Your task to perform on an android device: Go to location settings Image 0: 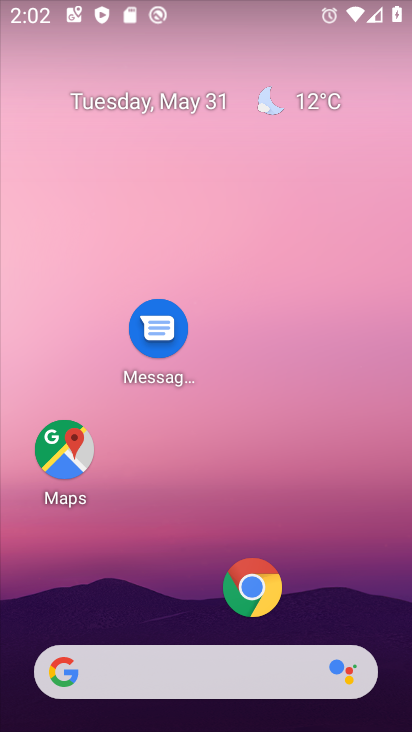
Step 0: drag from (286, 205) to (300, 153)
Your task to perform on an android device: Go to location settings Image 1: 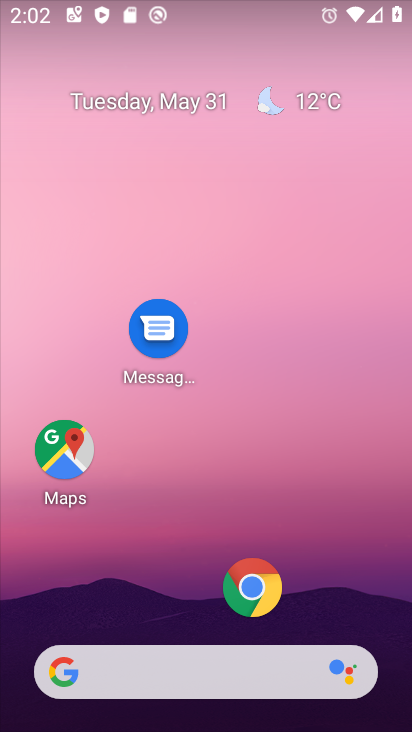
Step 1: drag from (206, 613) to (202, 90)
Your task to perform on an android device: Go to location settings Image 2: 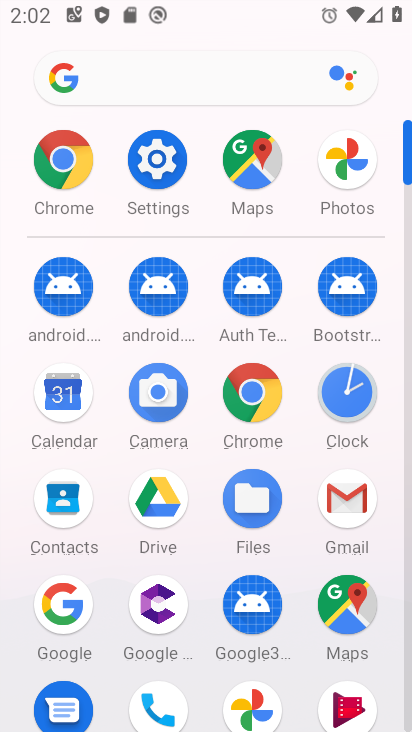
Step 2: click (149, 161)
Your task to perform on an android device: Go to location settings Image 3: 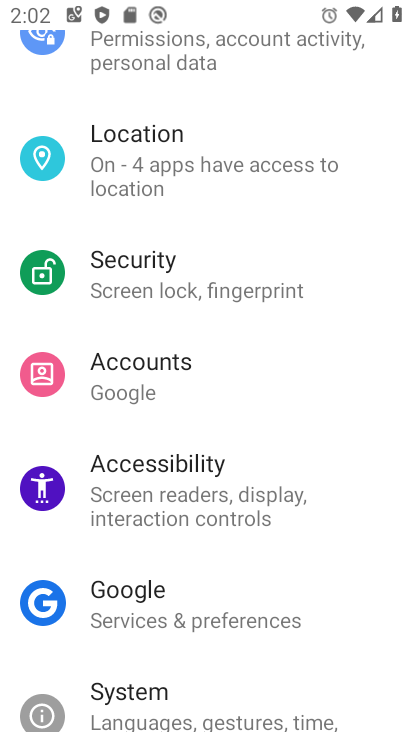
Step 3: click (147, 157)
Your task to perform on an android device: Go to location settings Image 4: 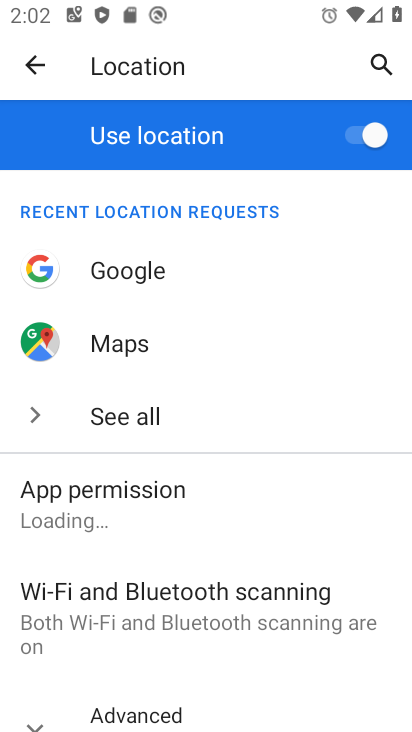
Step 4: drag from (212, 609) to (295, 128)
Your task to perform on an android device: Go to location settings Image 5: 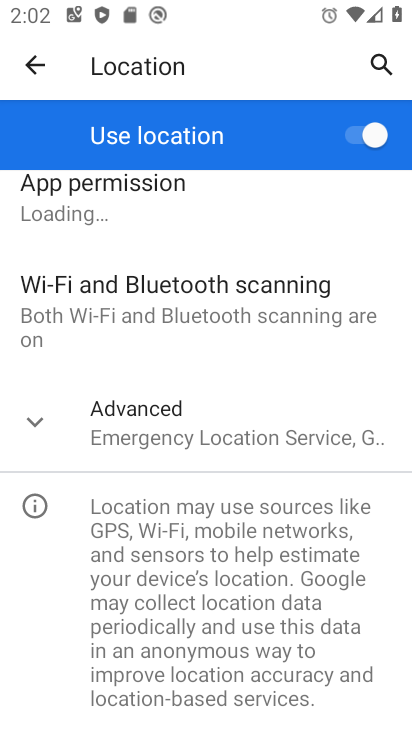
Step 5: click (144, 443)
Your task to perform on an android device: Go to location settings Image 6: 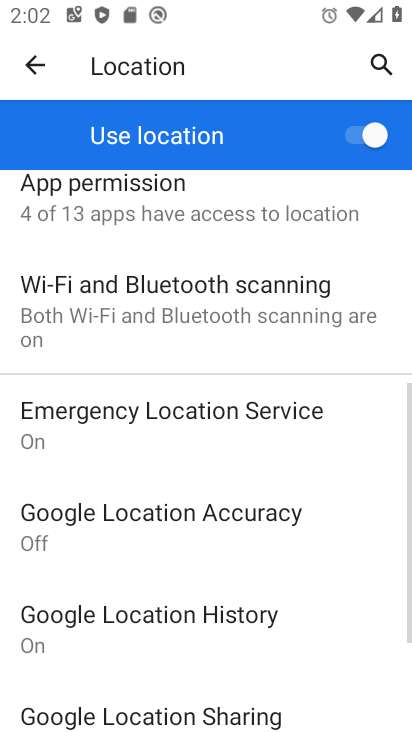
Step 6: task complete